Your task to perform on an android device: refresh tabs in the chrome app Image 0: 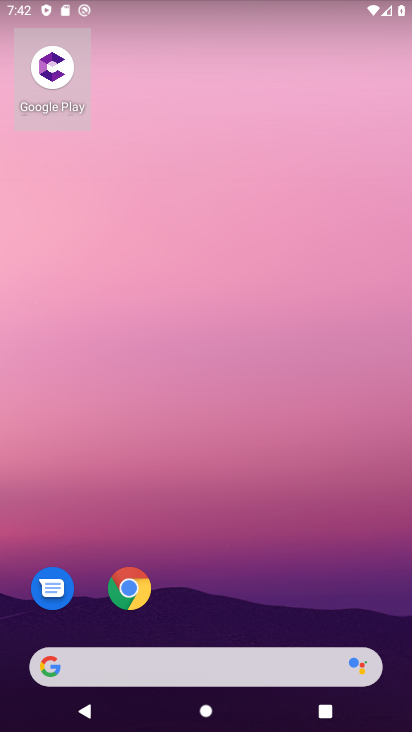
Step 0: click (132, 584)
Your task to perform on an android device: refresh tabs in the chrome app Image 1: 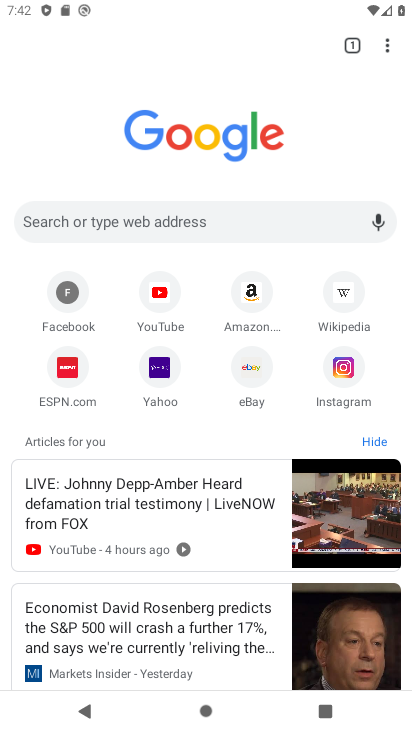
Step 1: click (377, 50)
Your task to perform on an android device: refresh tabs in the chrome app Image 2: 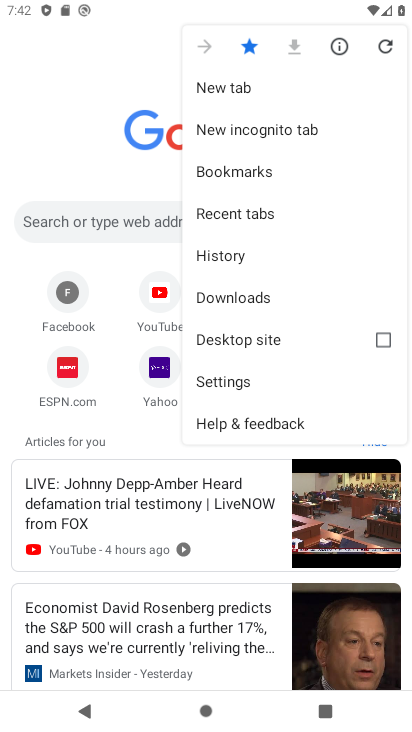
Step 2: click (376, 51)
Your task to perform on an android device: refresh tabs in the chrome app Image 3: 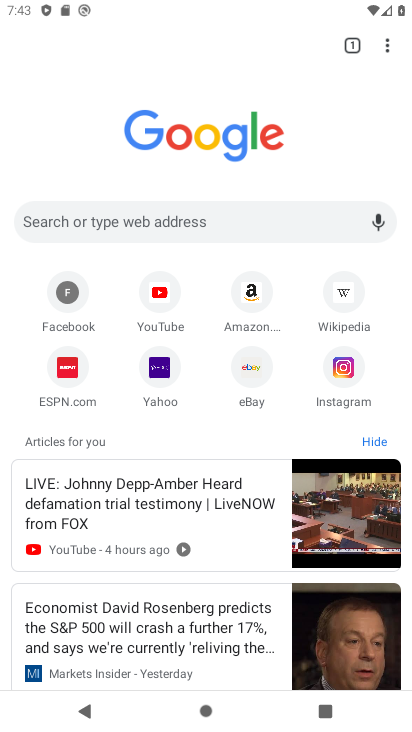
Step 3: task complete